Your task to perform on an android device: clear all cookies in the chrome app Image 0: 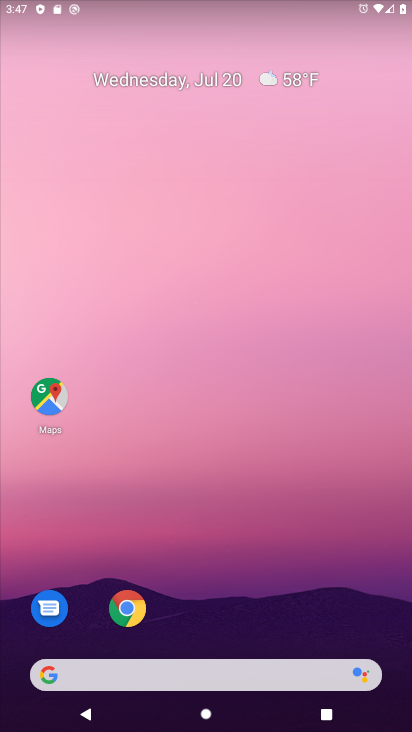
Step 0: click (127, 595)
Your task to perform on an android device: clear all cookies in the chrome app Image 1: 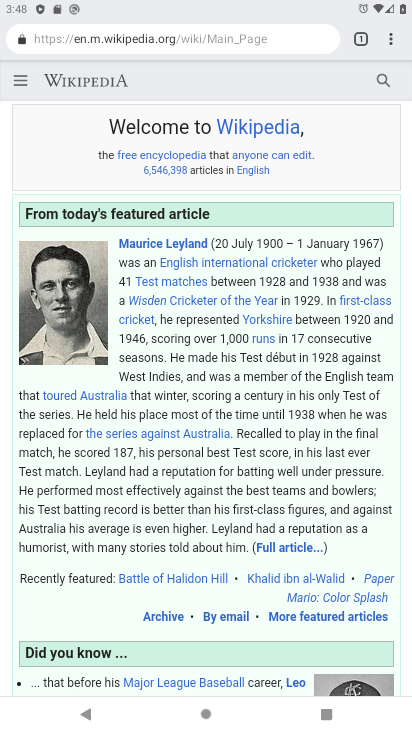
Step 1: click (387, 41)
Your task to perform on an android device: clear all cookies in the chrome app Image 2: 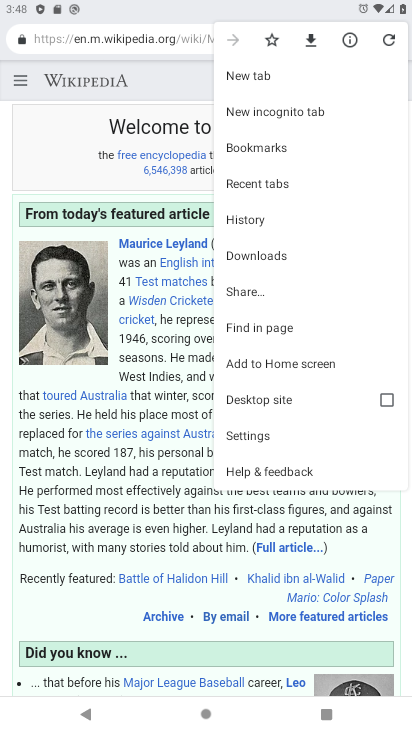
Step 2: click (263, 212)
Your task to perform on an android device: clear all cookies in the chrome app Image 3: 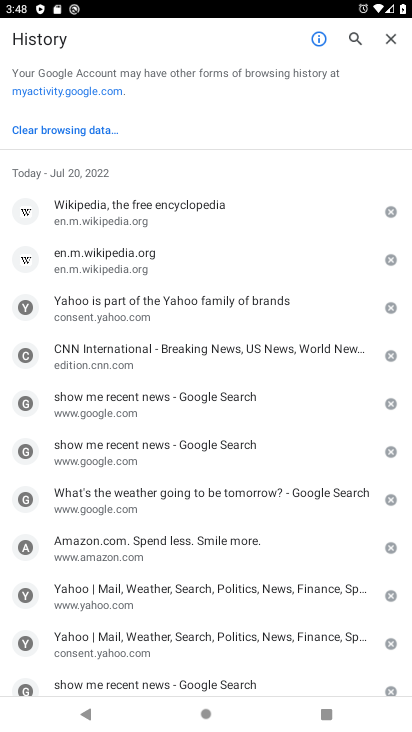
Step 3: click (78, 125)
Your task to perform on an android device: clear all cookies in the chrome app Image 4: 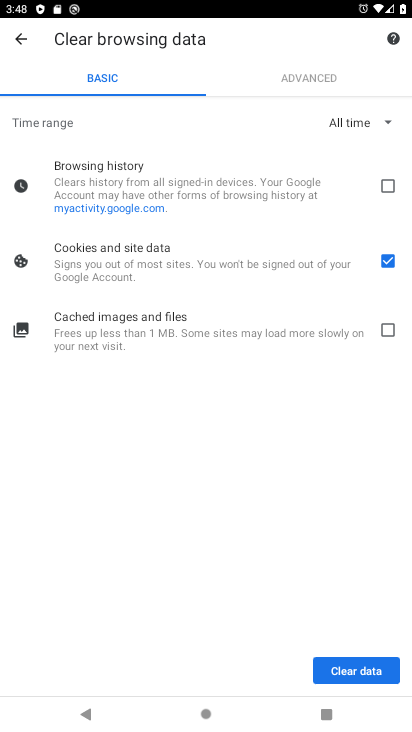
Step 4: click (346, 661)
Your task to perform on an android device: clear all cookies in the chrome app Image 5: 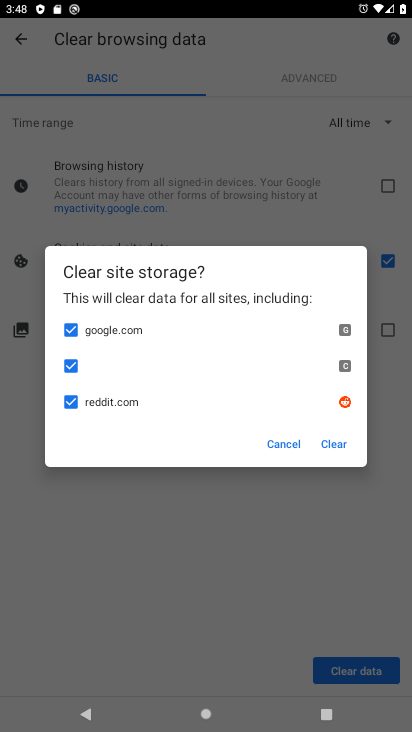
Step 5: click (337, 444)
Your task to perform on an android device: clear all cookies in the chrome app Image 6: 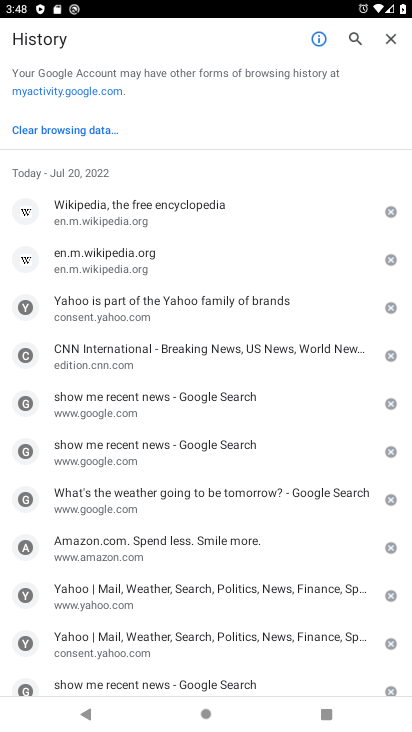
Step 6: task complete